Your task to perform on an android device: Set the phone to "Do not disturb". Image 0: 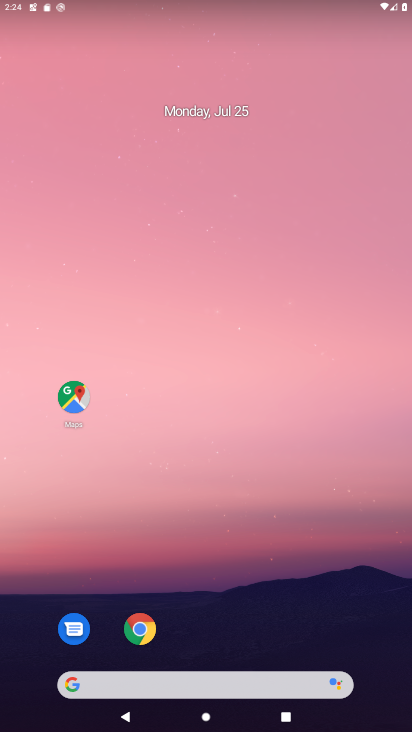
Step 0: drag from (273, 647) to (328, 0)
Your task to perform on an android device: Set the phone to "Do not disturb". Image 1: 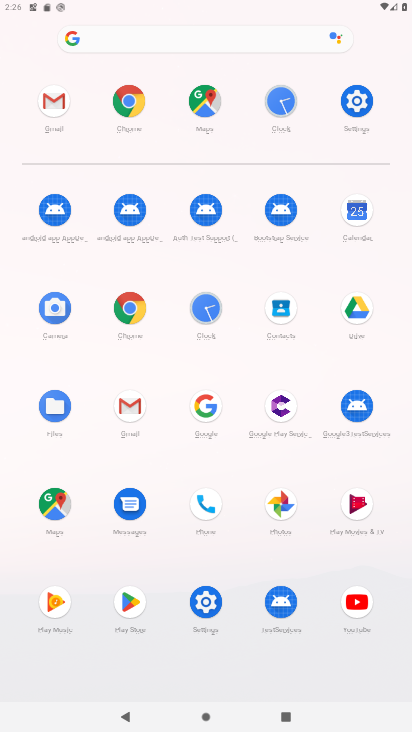
Step 1: click (361, 109)
Your task to perform on an android device: Set the phone to "Do not disturb". Image 2: 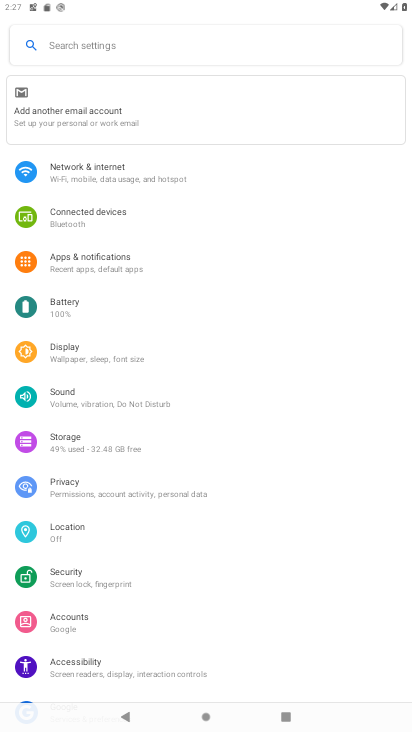
Step 2: click (75, 398)
Your task to perform on an android device: Set the phone to "Do not disturb". Image 3: 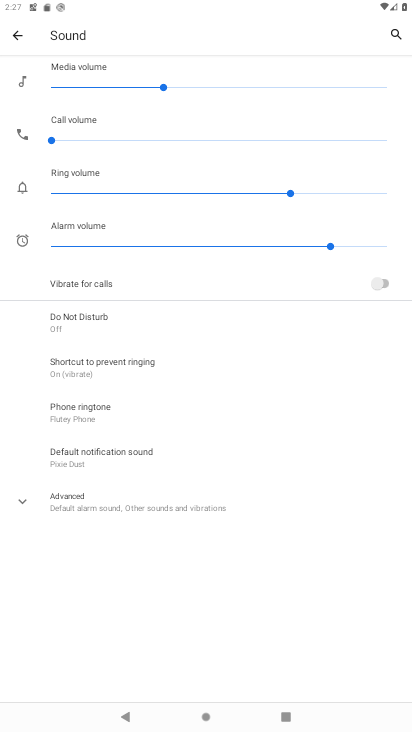
Step 3: click (69, 324)
Your task to perform on an android device: Set the phone to "Do not disturb". Image 4: 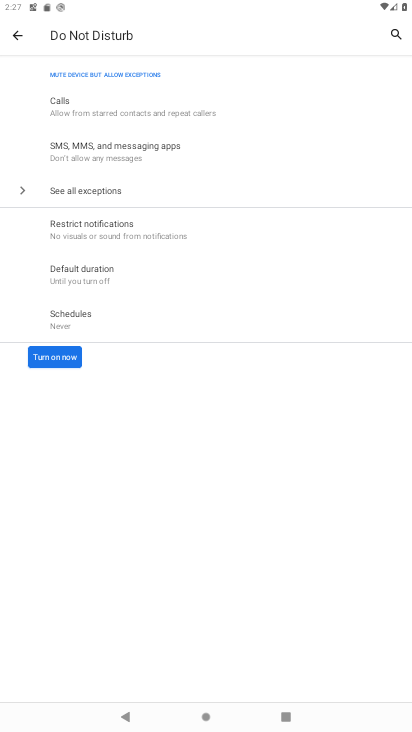
Step 4: click (53, 359)
Your task to perform on an android device: Set the phone to "Do not disturb". Image 5: 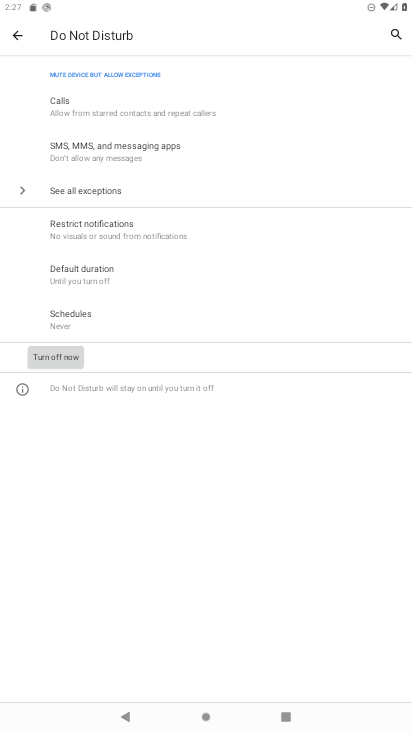
Step 5: task complete